Your task to perform on an android device: Search for sushi restaurants on Maps Image 0: 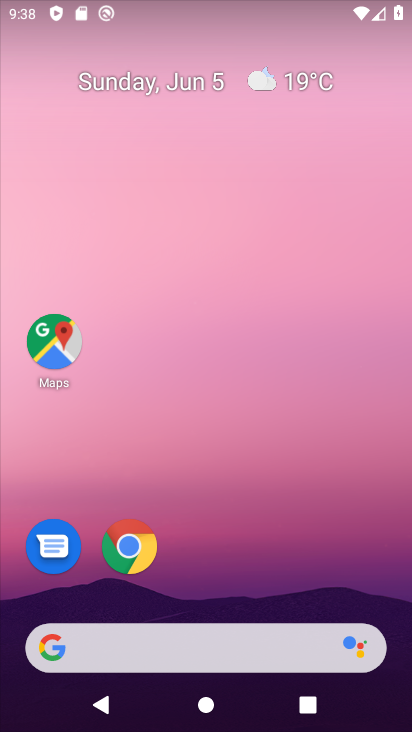
Step 0: click (65, 351)
Your task to perform on an android device: Search for sushi restaurants on Maps Image 1: 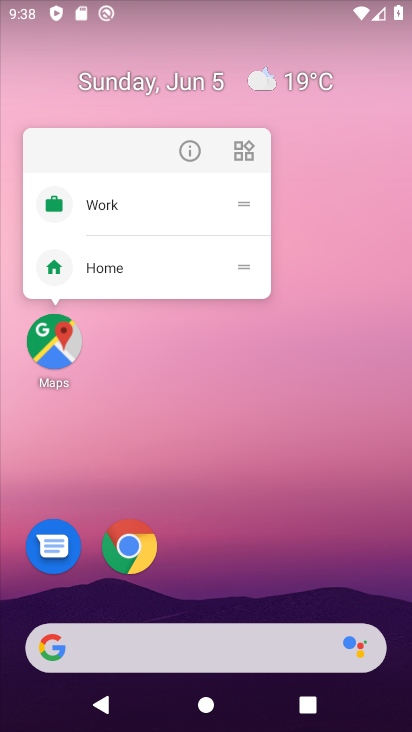
Step 1: click (58, 340)
Your task to perform on an android device: Search for sushi restaurants on Maps Image 2: 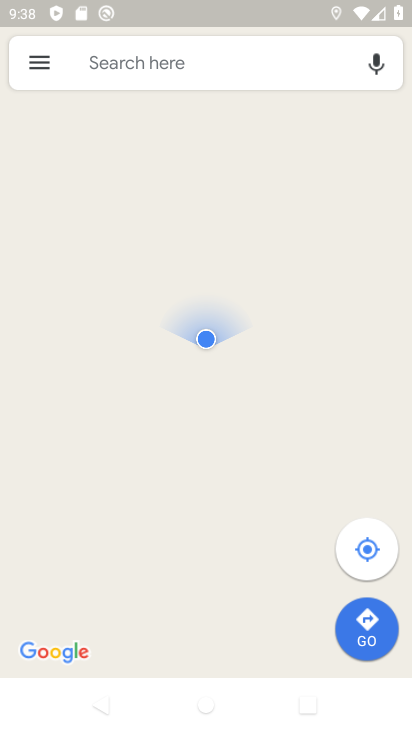
Step 2: click (224, 79)
Your task to perform on an android device: Search for sushi restaurants on Maps Image 3: 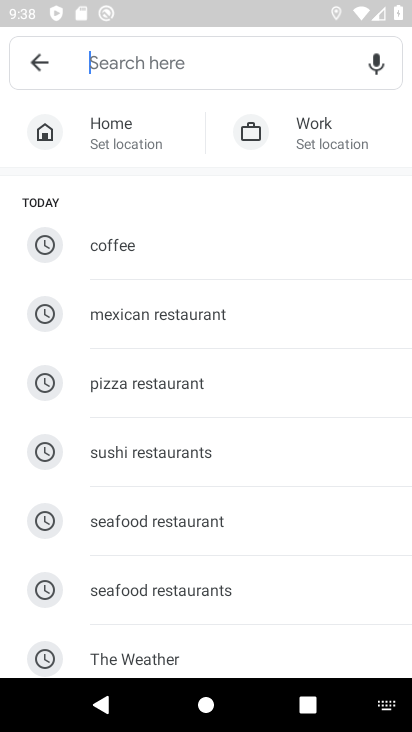
Step 3: type "sushi restaurants"
Your task to perform on an android device: Search for sushi restaurants on Maps Image 4: 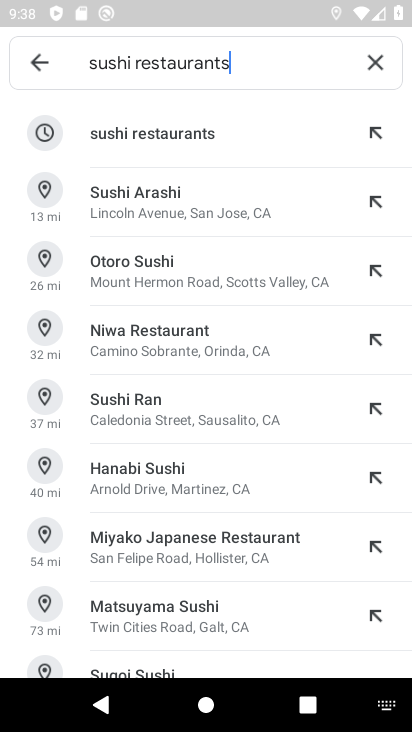
Step 4: click (167, 145)
Your task to perform on an android device: Search for sushi restaurants on Maps Image 5: 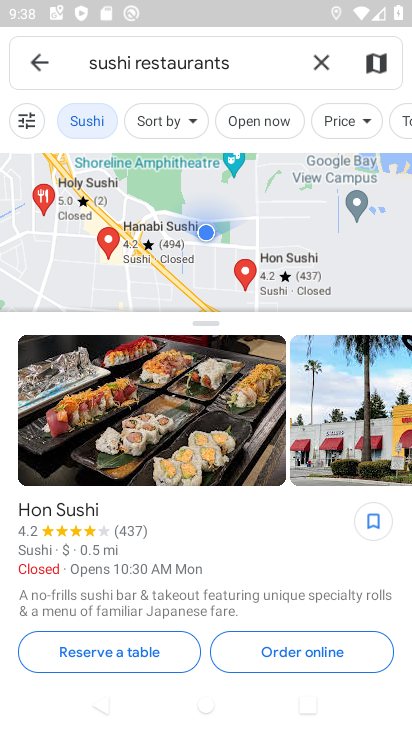
Step 5: task complete